Your task to perform on an android device: Search for razer blade on costco, select the first entry, add it to the cart, then select checkout. Image 0: 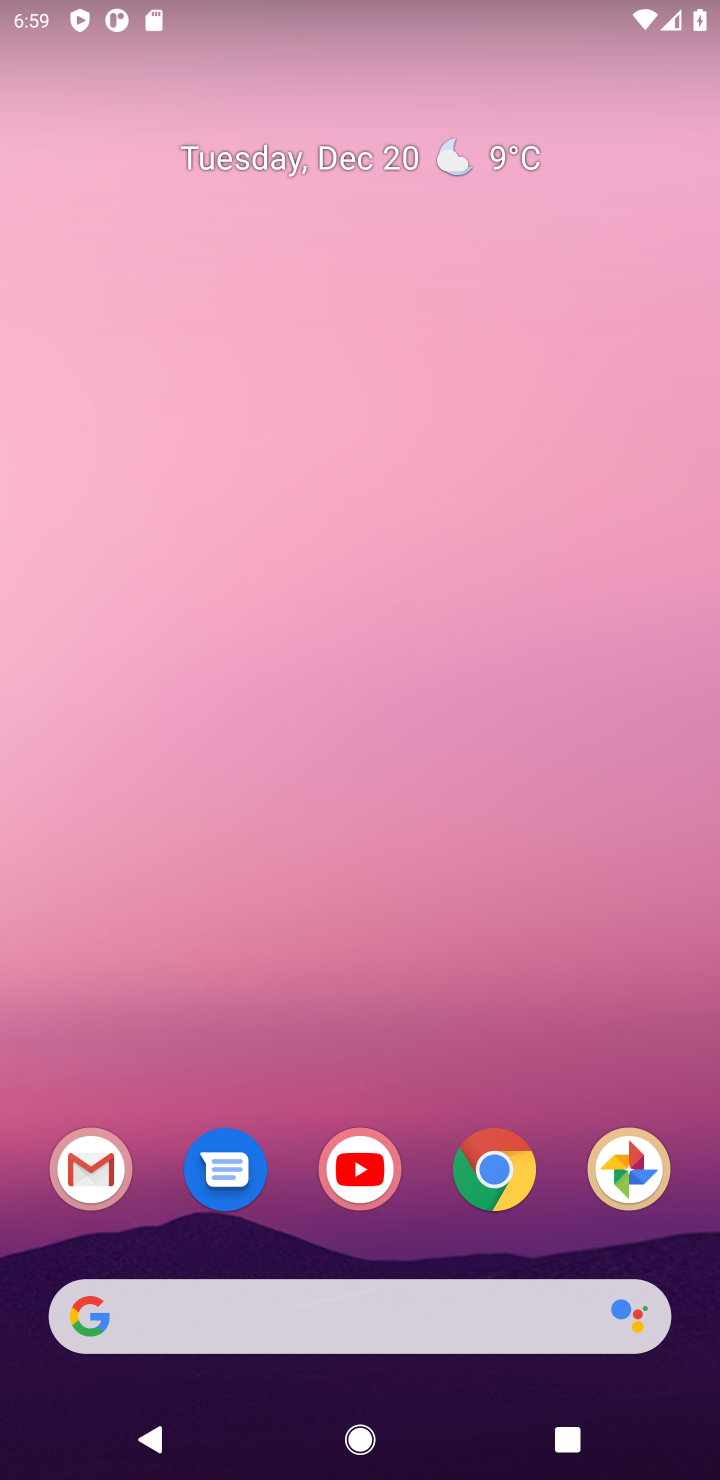
Step 0: click (459, 1156)
Your task to perform on an android device: Search for razer blade on costco, select the first entry, add it to the cart, then select checkout. Image 1: 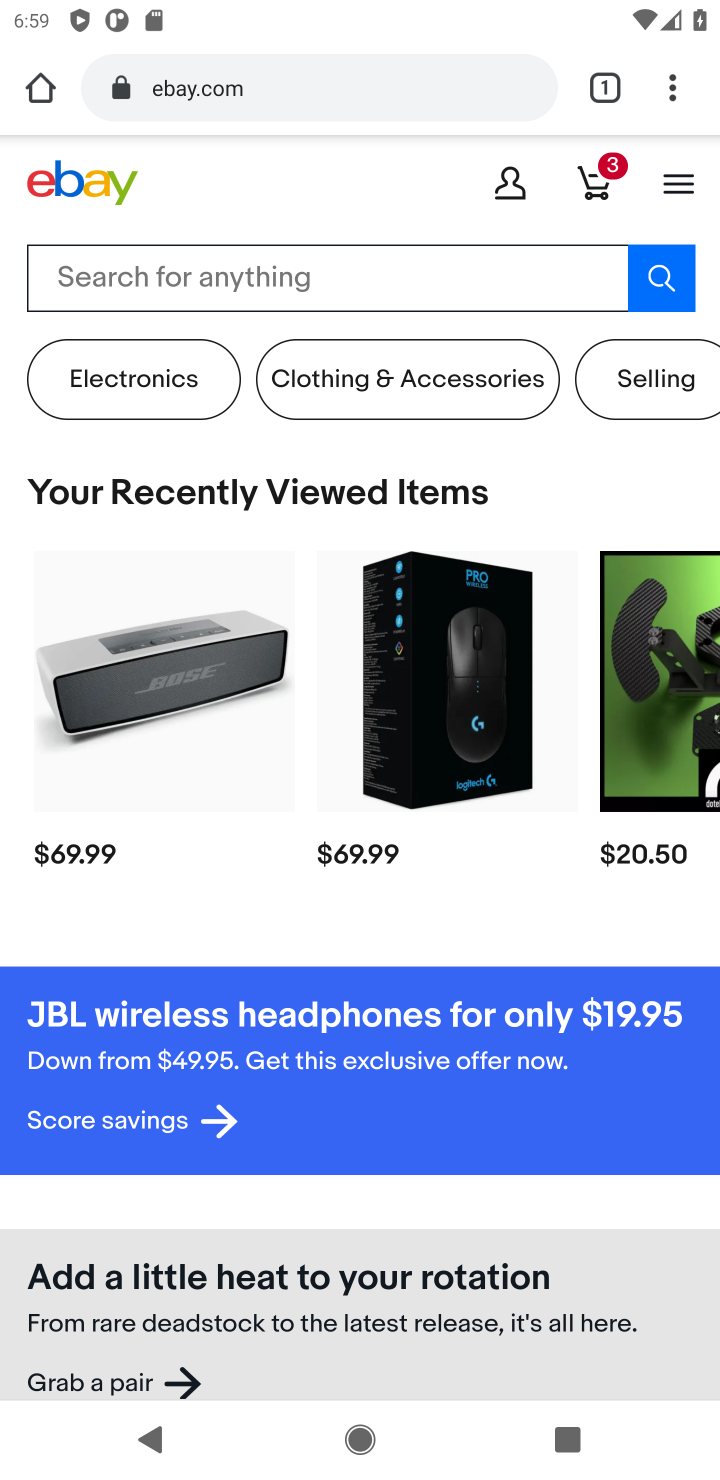
Step 1: click (308, 106)
Your task to perform on an android device: Search for razer blade on costco, select the first entry, add it to the cart, then select checkout. Image 2: 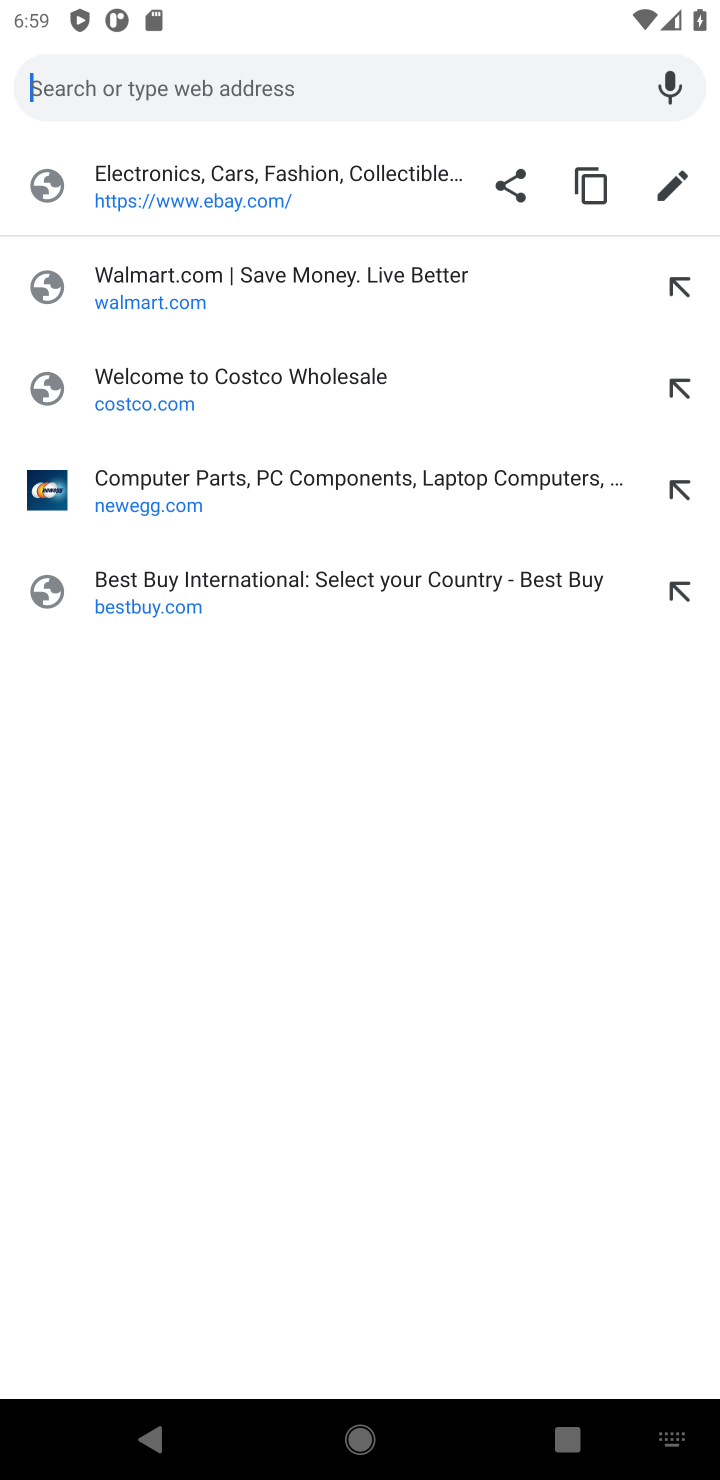
Step 2: click (228, 395)
Your task to perform on an android device: Search for razer blade on costco, select the first entry, add it to the cart, then select checkout. Image 3: 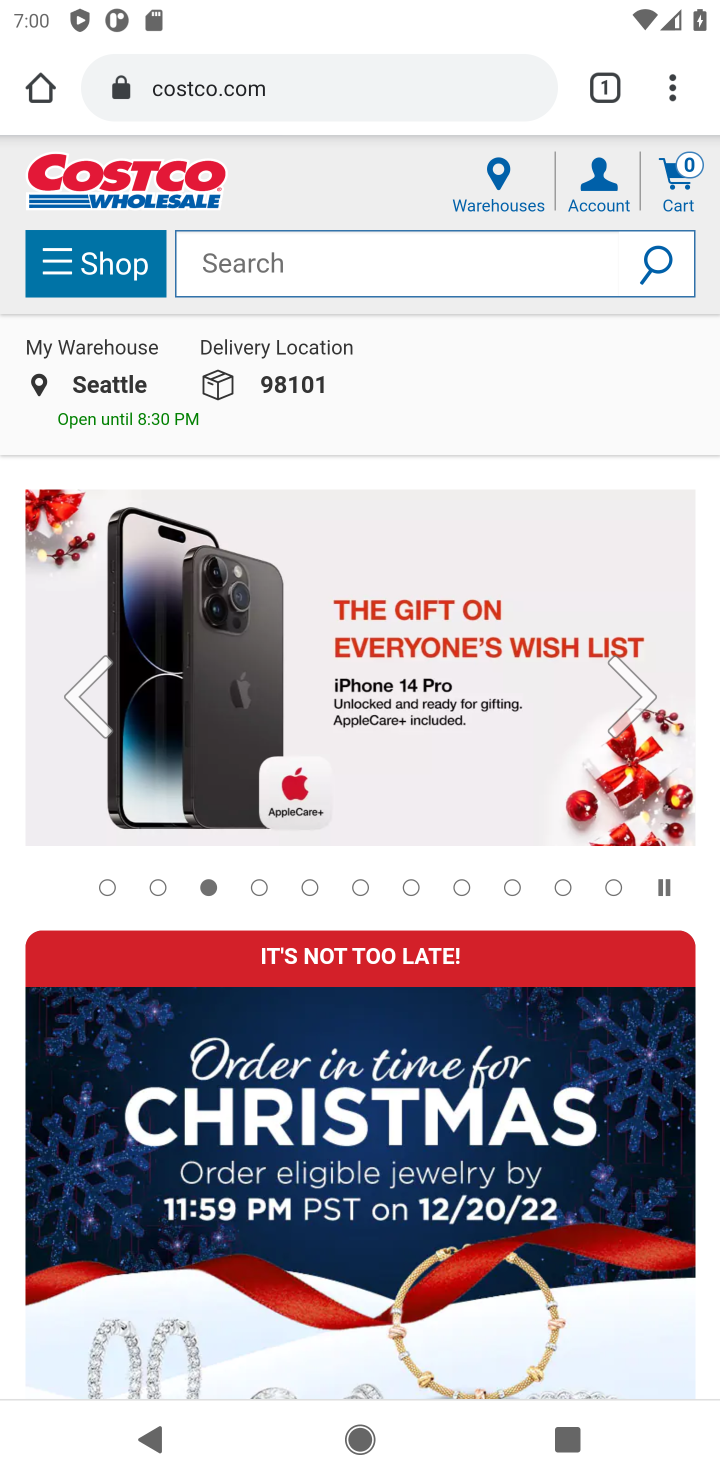
Step 3: click (295, 259)
Your task to perform on an android device: Search for razer blade on costco, select the first entry, add it to the cart, then select checkout. Image 4: 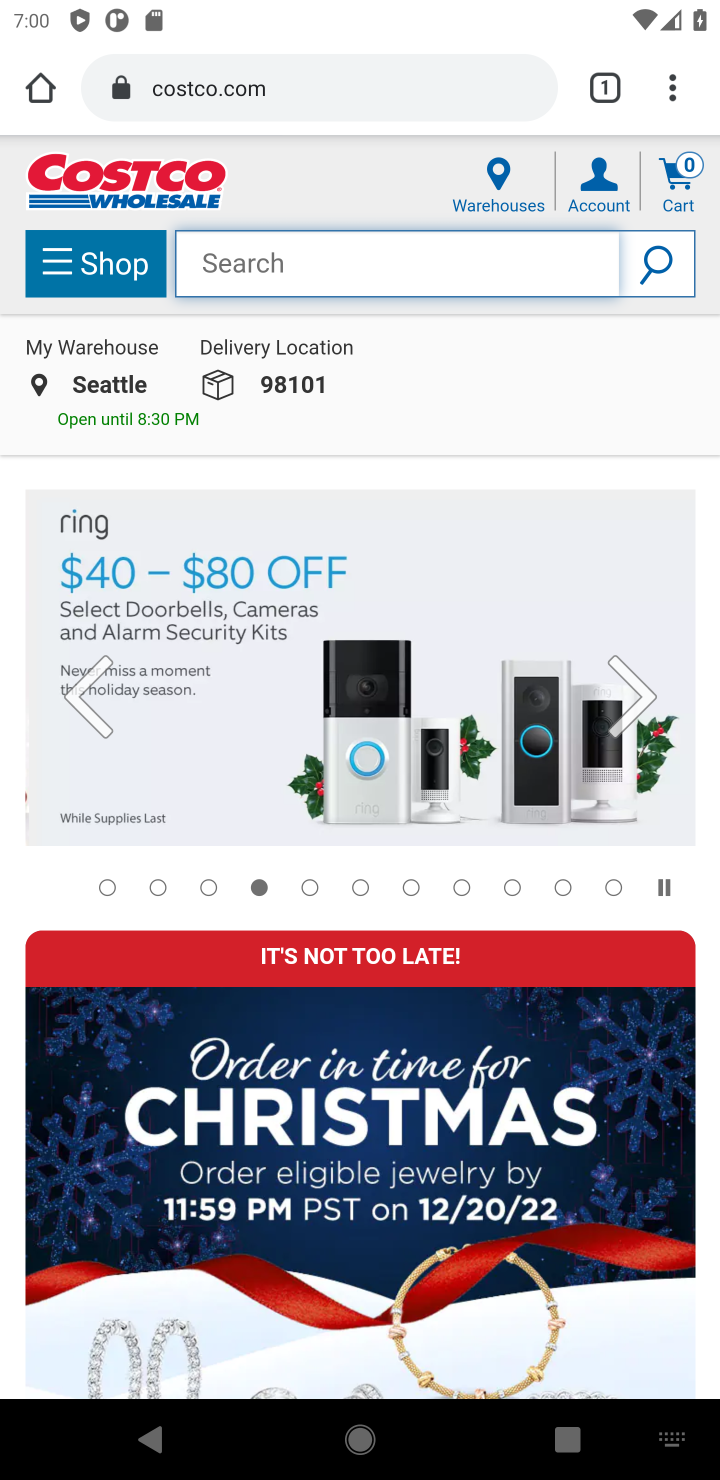
Step 4: type "razer blade"
Your task to perform on an android device: Search for razer blade on costco, select the first entry, add it to the cart, then select checkout. Image 5: 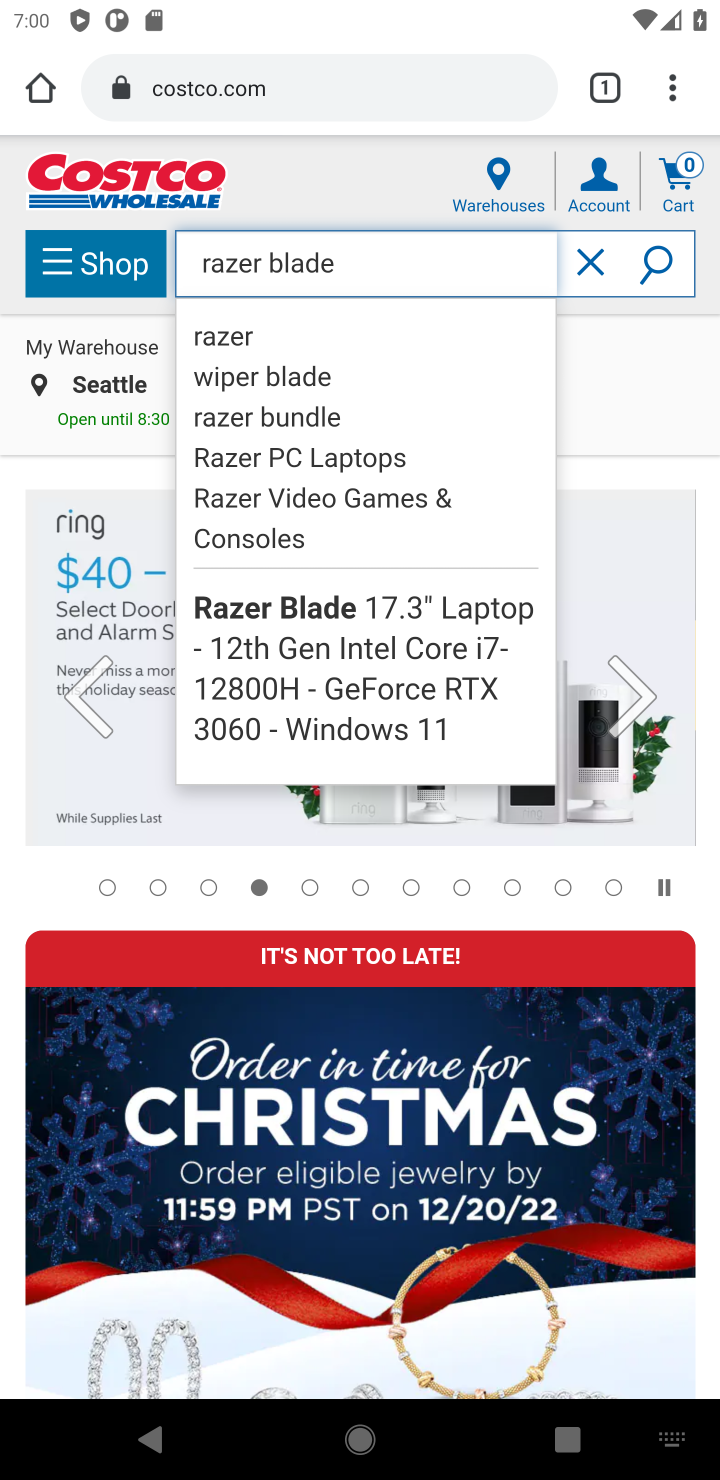
Step 5: click (681, 259)
Your task to perform on an android device: Search for razer blade on costco, select the first entry, add it to the cart, then select checkout. Image 6: 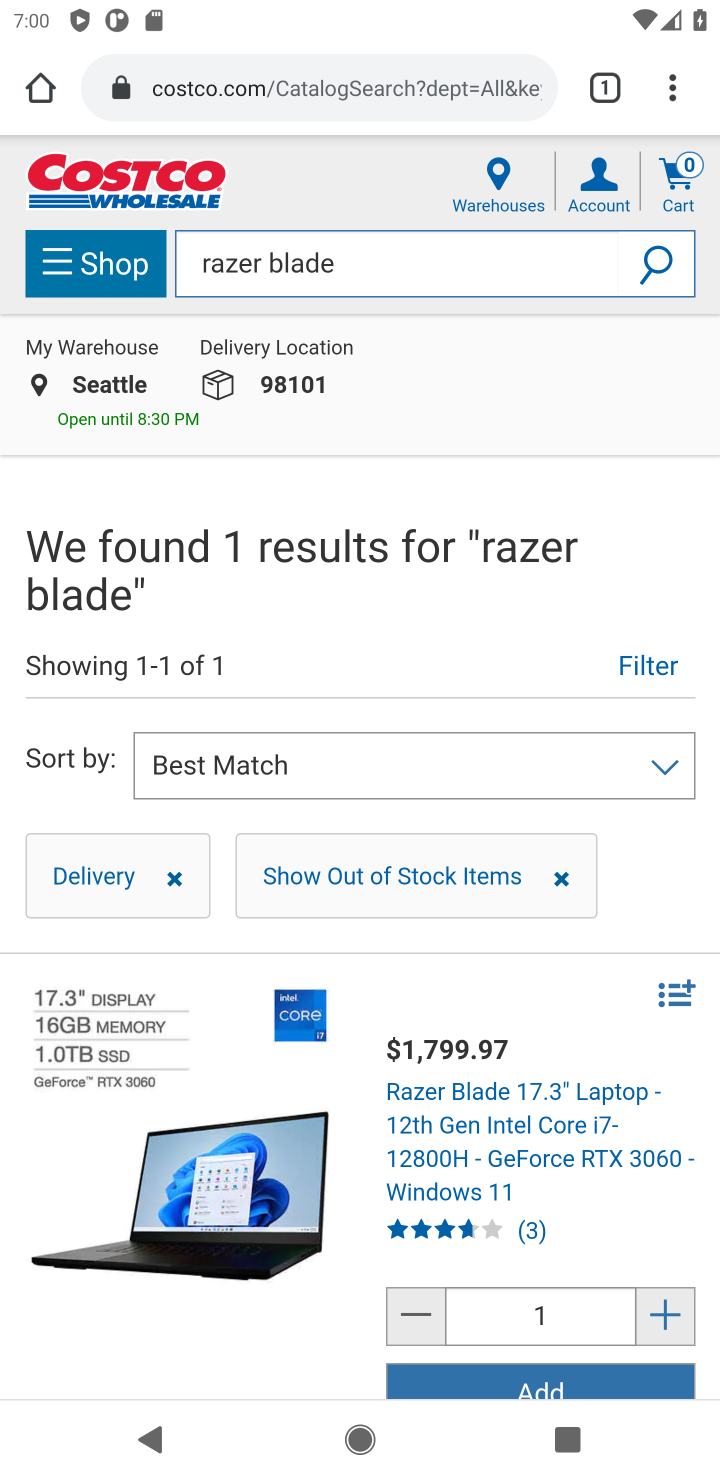
Step 6: click (500, 1387)
Your task to perform on an android device: Search for razer blade on costco, select the first entry, add it to the cart, then select checkout. Image 7: 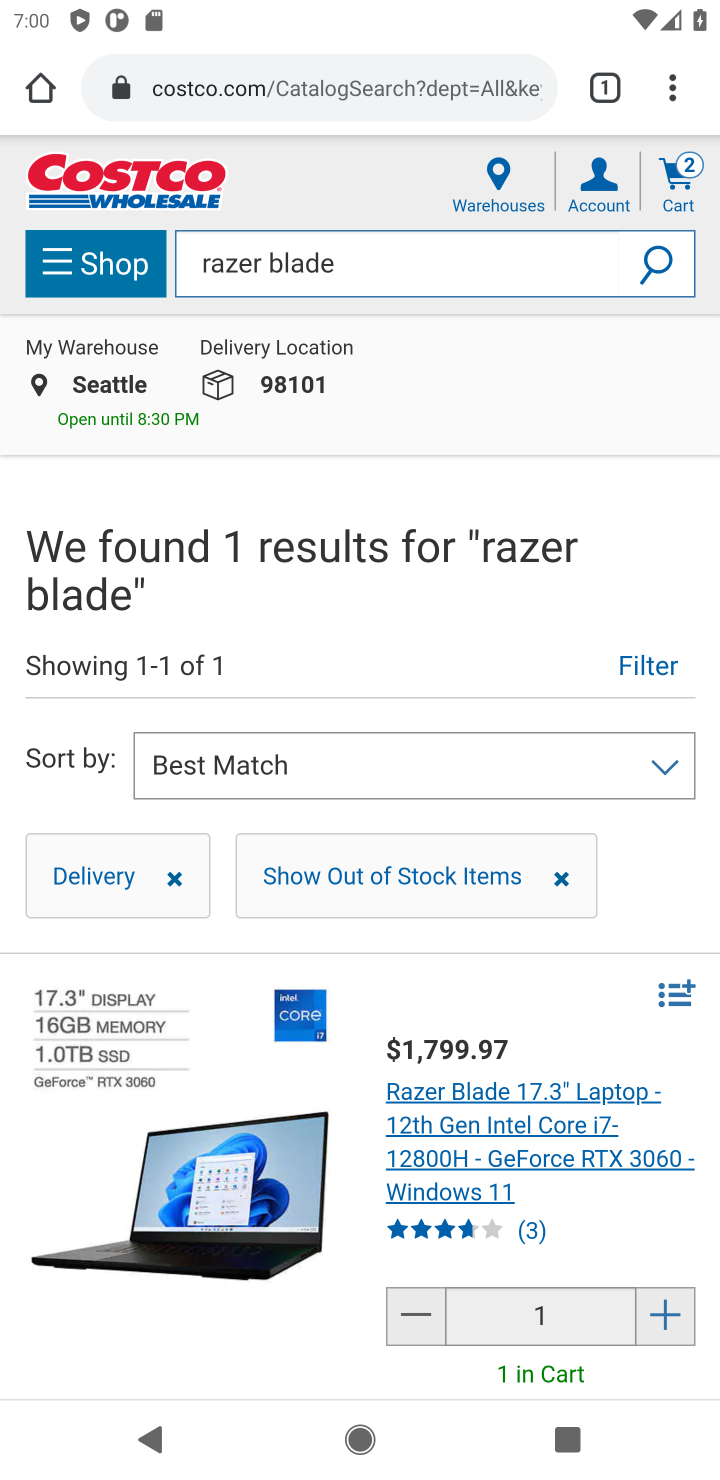
Step 7: task complete